Your task to perform on an android device: turn off sleep mode Image 0: 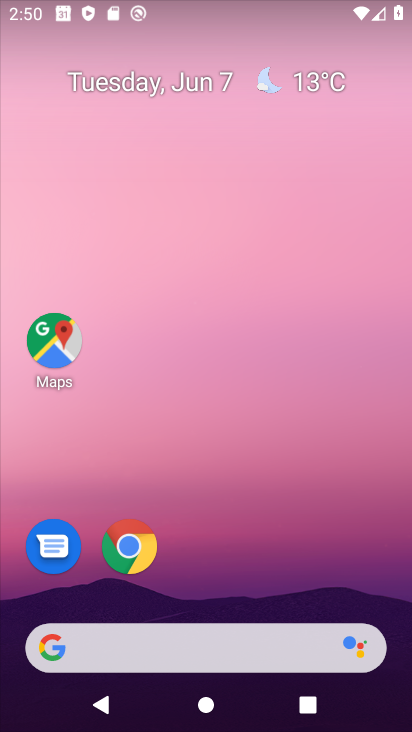
Step 0: drag from (279, 542) to (279, 222)
Your task to perform on an android device: turn off sleep mode Image 1: 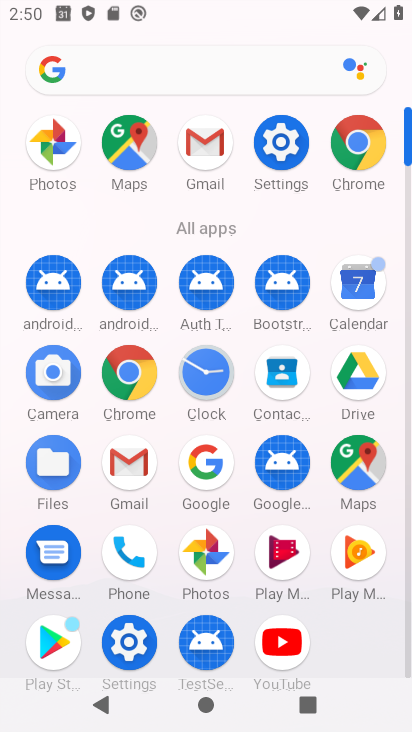
Step 1: click (277, 149)
Your task to perform on an android device: turn off sleep mode Image 2: 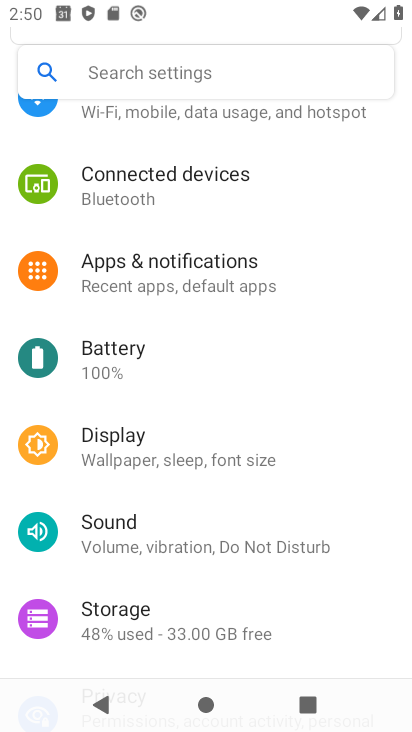
Step 2: drag from (215, 160) to (222, 251)
Your task to perform on an android device: turn off sleep mode Image 3: 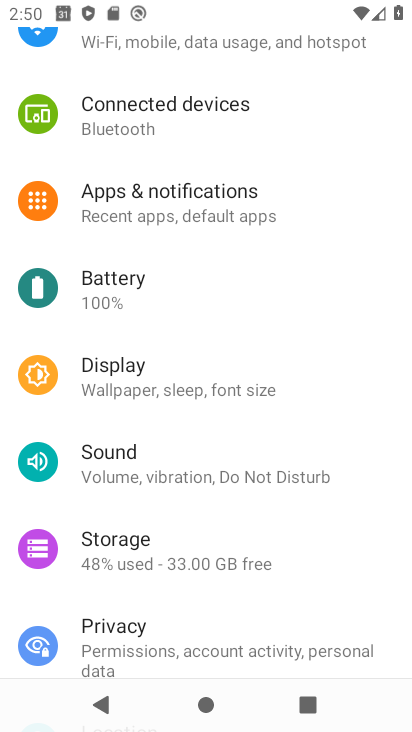
Step 3: click (108, 398)
Your task to perform on an android device: turn off sleep mode Image 4: 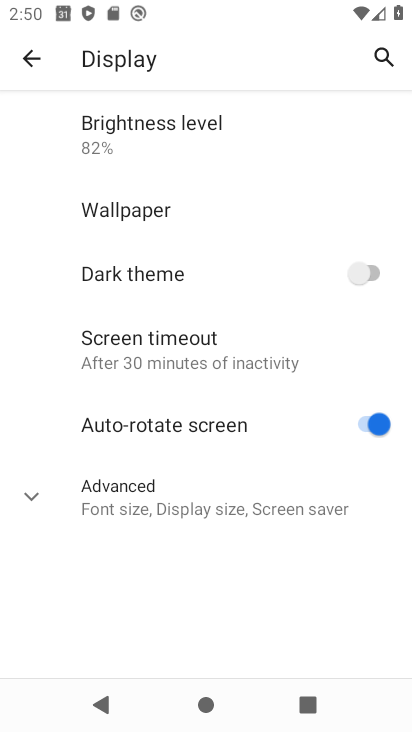
Step 4: task complete